Your task to perform on an android device: Open Reddit.com Image 0: 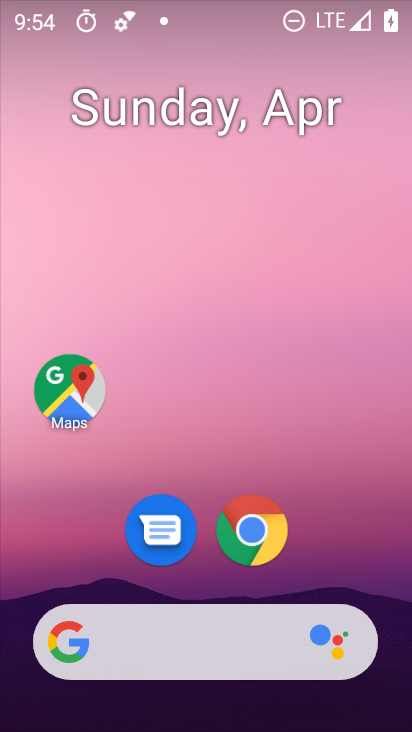
Step 0: click (261, 536)
Your task to perform on an android device: Open Reddit.com Image 1: 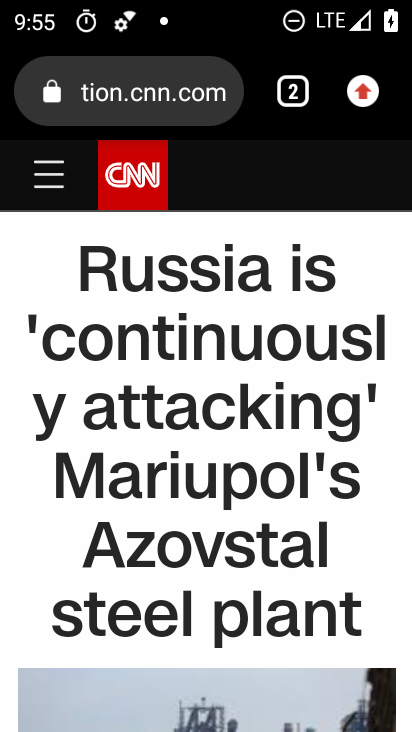
Step 1: click (169, 95)
Your task to perform on an android device: Open Reddit.com Image 2: 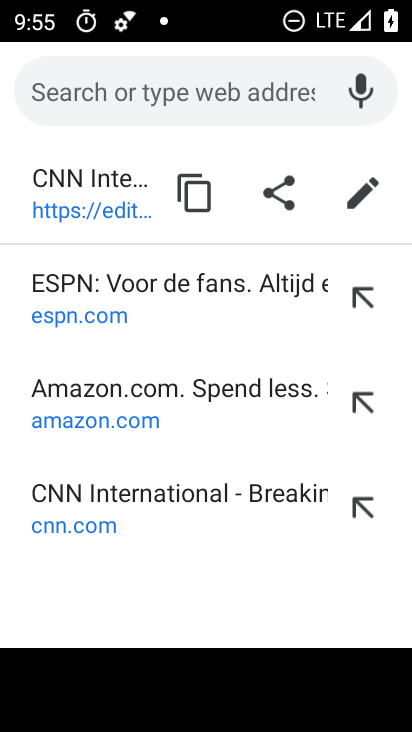
Step 2: type "reddit.com"
Your task to perform on an android device: Open Reddit.com Image 3: 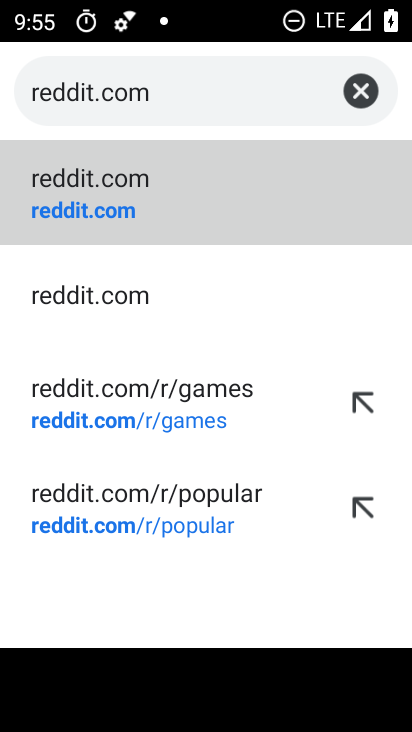
Step 3: click (53, 319)
Your task to perform on an android device: Open Reddit.com Image 4: 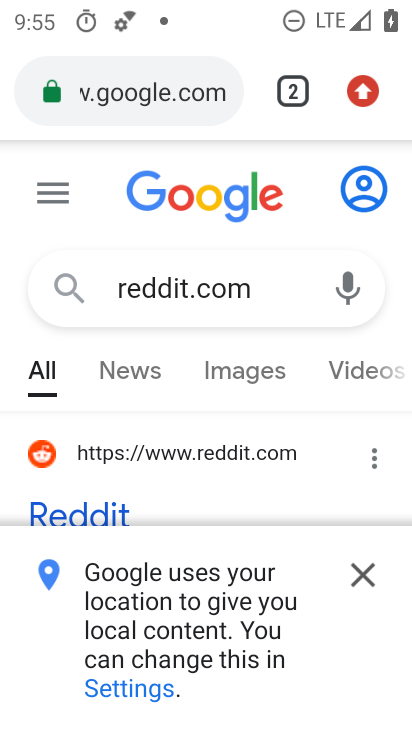
Step 4: drag from (140, 474) to (134, 319)
Your task to perform on an android device: Open Reddit.com Image 5: 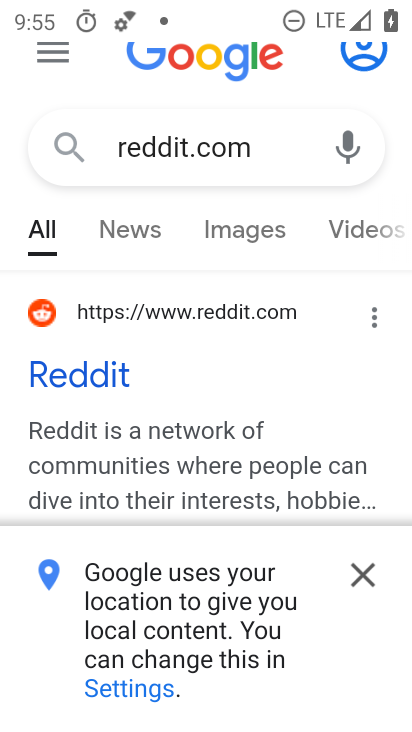
Step 5: click (73, 392)
Your task to perform on an android device: Open Reddit.com Image 6: 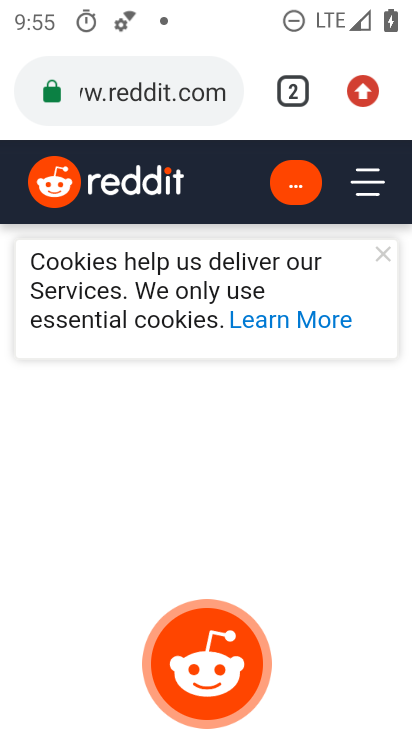
Step 6: task complete